Your task to perform on an android device: Open wifi settings Image 0: 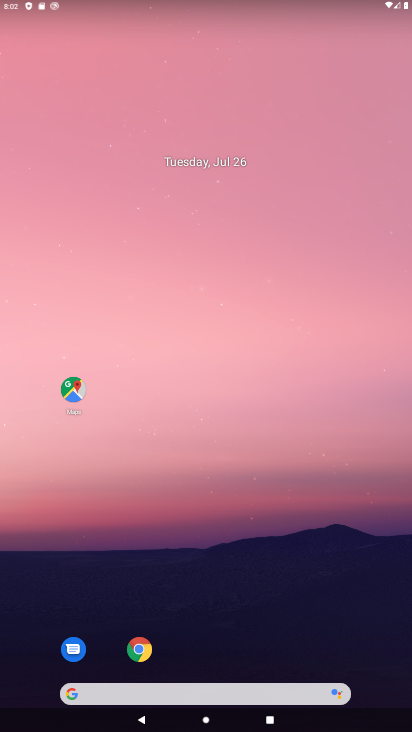
Step 0: drag from (229, 717) to (211, 188)
Your task to perform on an android device: Open wifi settings Image 1: 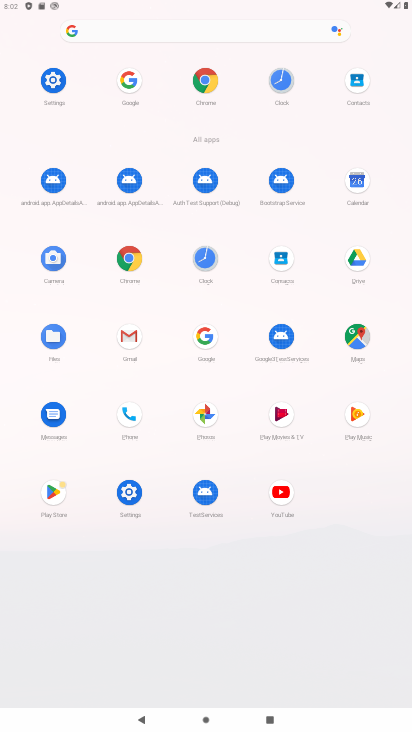
Step 1: click (58, 93)
Your task to perform on an android device: Open wifi settings Image 2: 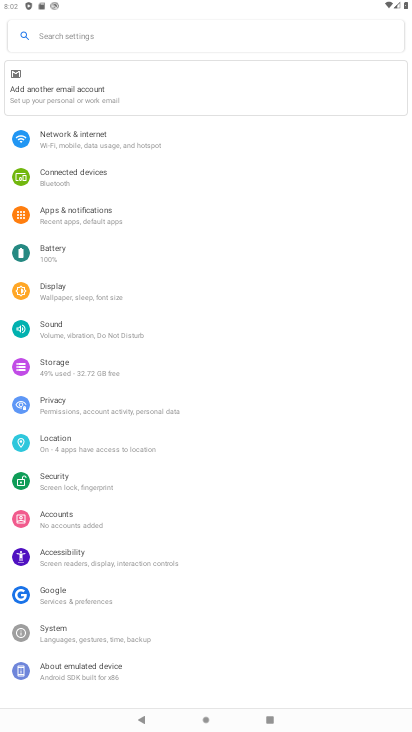
Step 2: click (45, 142)
Your task to perform on an android device: Open wifi settings Image 3: 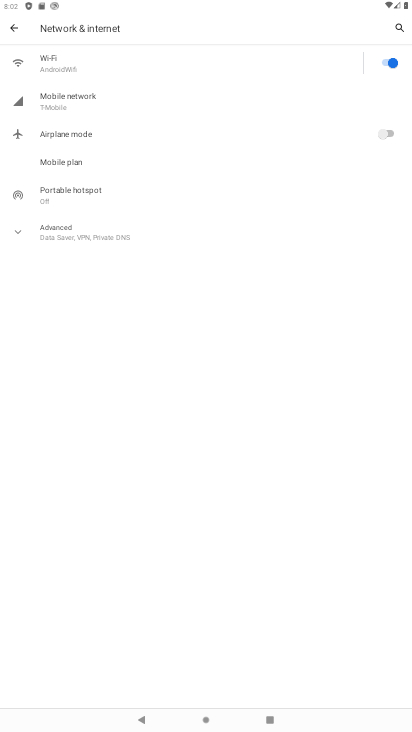
Step 3: task complete